Your task to perform on an android device: change the clock display to analog Image 0: 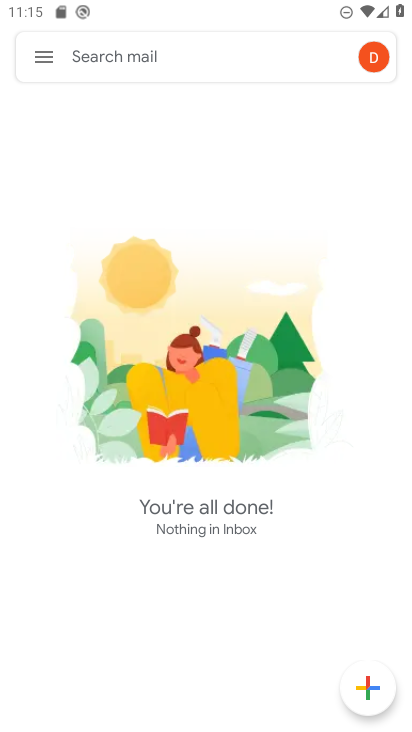
Step 0: drag from (187, 633) to (243, 408)
Your task to perform on an android device: change the clock display to analog Image 1: 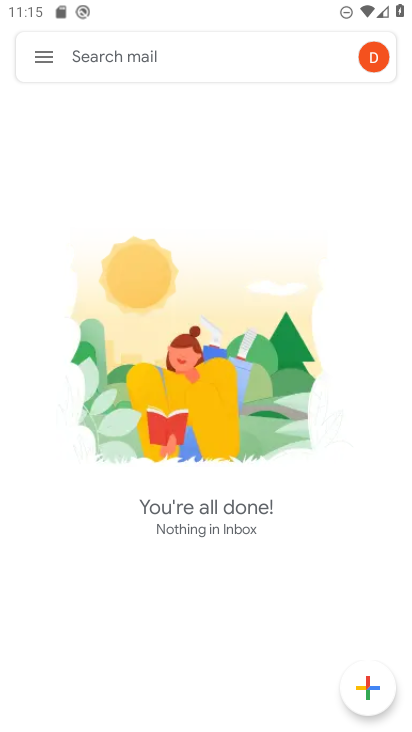
Step 1: click (44, 60)
Your task to perform on an android device: change the clock display to analog Image 2: 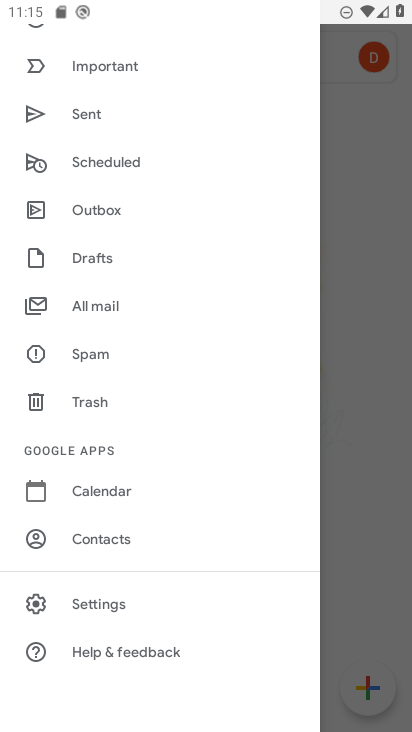
Step 2: press home button
Your task to perform on an android device: change the clock display to analog Image 3: 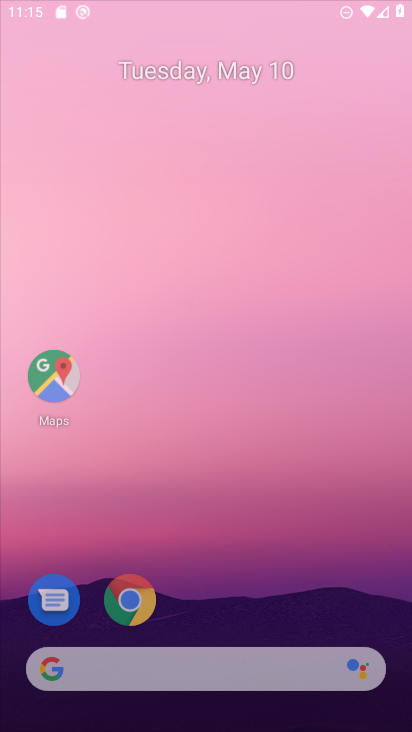
Step 3: drag from (135, 644) to (267, 127)
Your task to perform on an android device: change the clock display to analog Image 4: 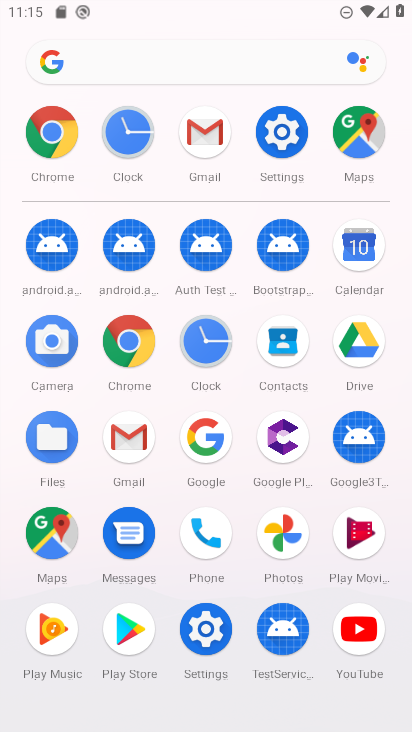
Step 4: click (215, 338)
Your task to perform on an android device: change the clock display to analog Image 5: 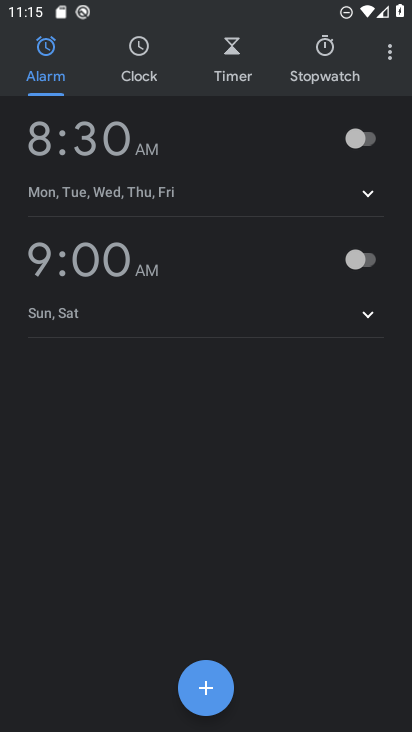
Step 5: click (389, 53)
Your task to perform on an android device: change the clock display to analog Image 6: 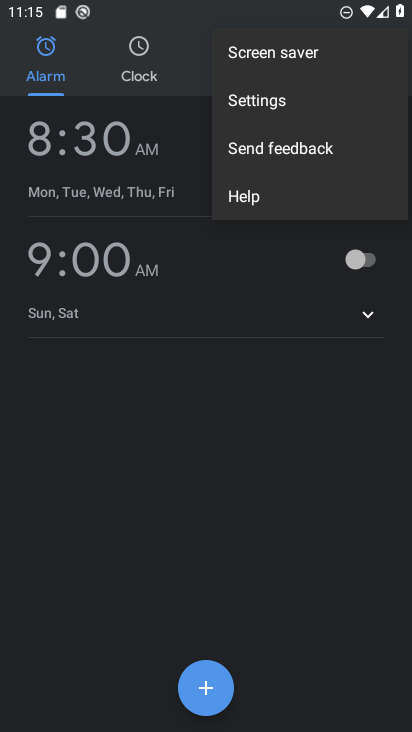
Step 6: click (298, 94)
Your task to perform on an android device: change the clock display to analog Image 7: 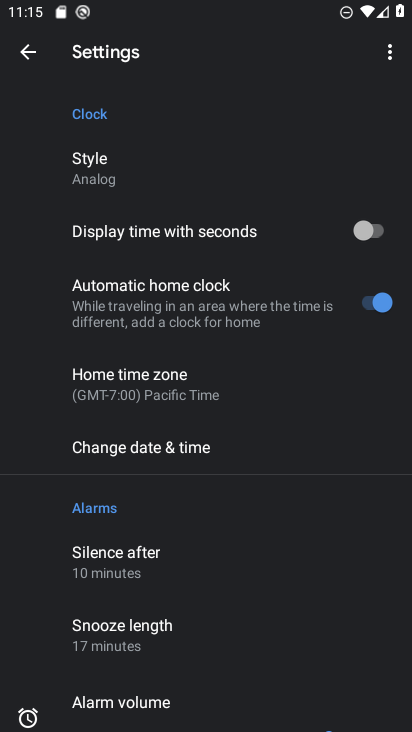
Step 7: drag from (218, 655) to (270, 401)
Your task to perform on an android device: change the clock display to analog Image 8: 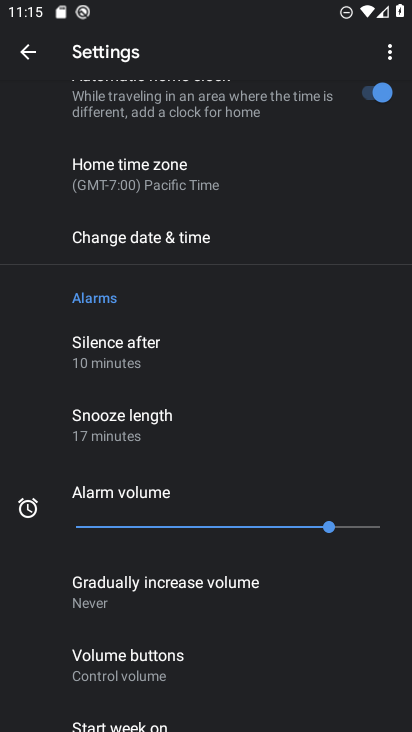
Step 8: drag from (121, 185) to (286, 729)
Your task to perform on an android device: change the clock display to analog Image 9: 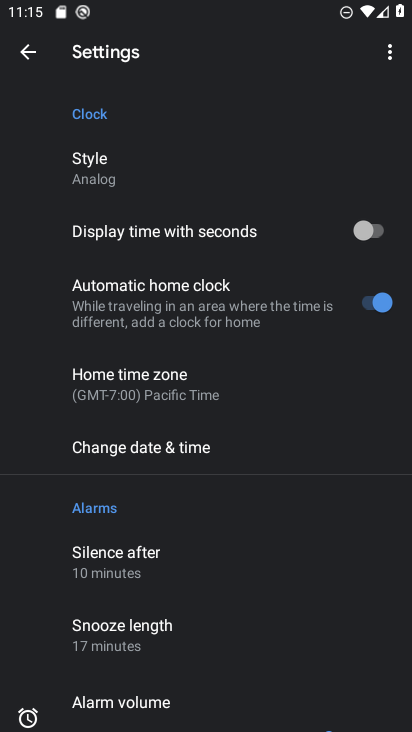
Step 9: click (98, 175)
Your task to perform on an android device: change the clock display to analog Image 10: 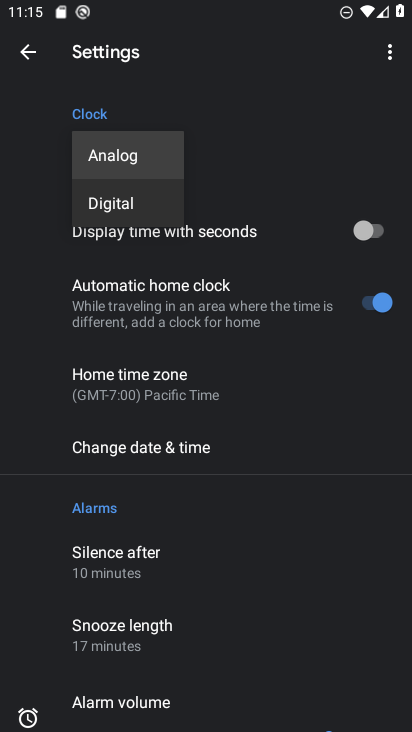
Step 10: click (161, 156)
Your task to perform on an android device: change the clock display to analog Image 11: 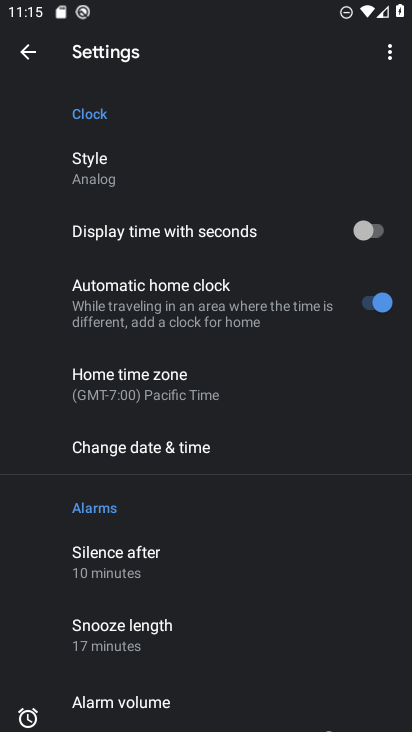
Step 11: task complete